Your task to perform on an android device: Open privacy settings Image 0: 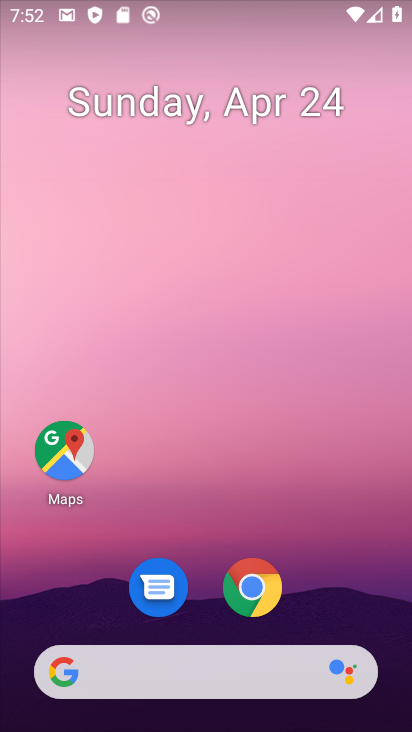
Step 0: drag from (338, 569) to (305, 204)
Your task to perform on an android device: Open privacy settings Image 1: 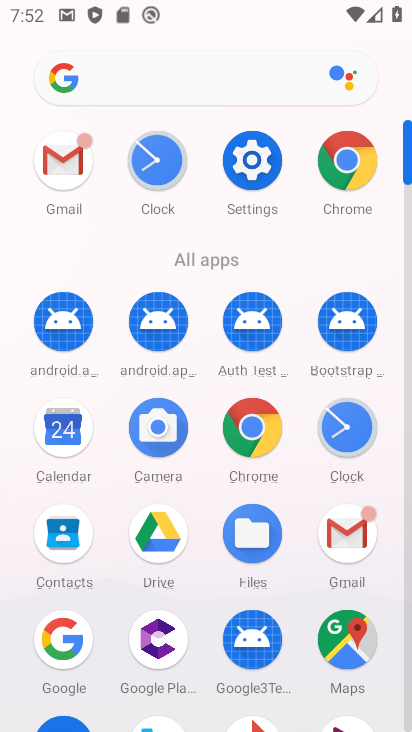
Step 1: click (242, 151)
Your task to perform on an android device: Open privacy settings Image 2: 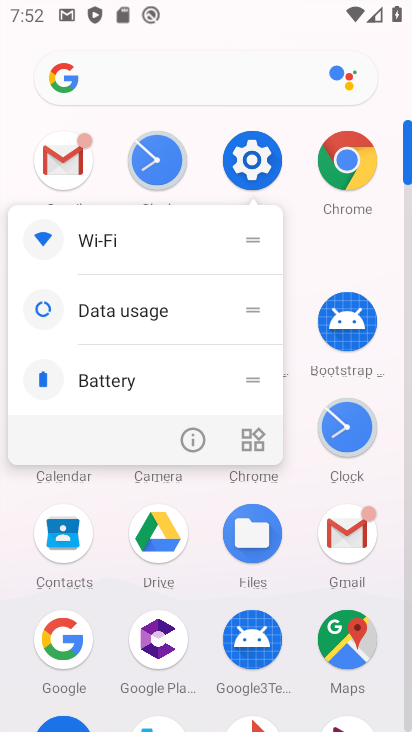
Step 2: click (243, 170)
Your task to perform on an android device: Open privacy settings Image 3: 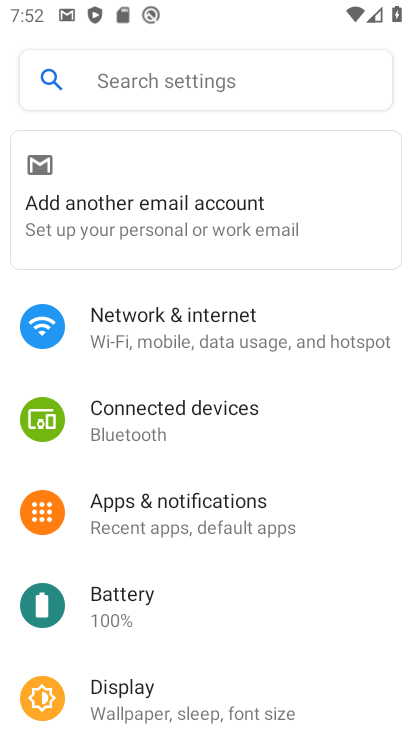
Step 3: drag from (258, 590) to (292, 297)
Your task to perform on an android device: Open privacy settings Image 4: 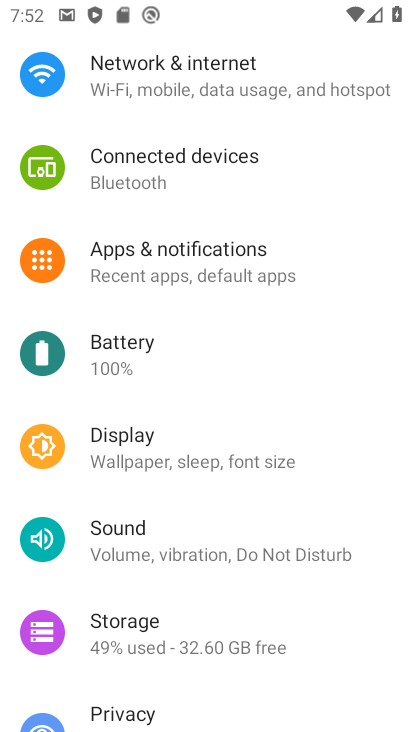
Step 4: drag from (233, 625) to (297, 329)
Your task to perform on an android device: Open privacy settings Image 5: 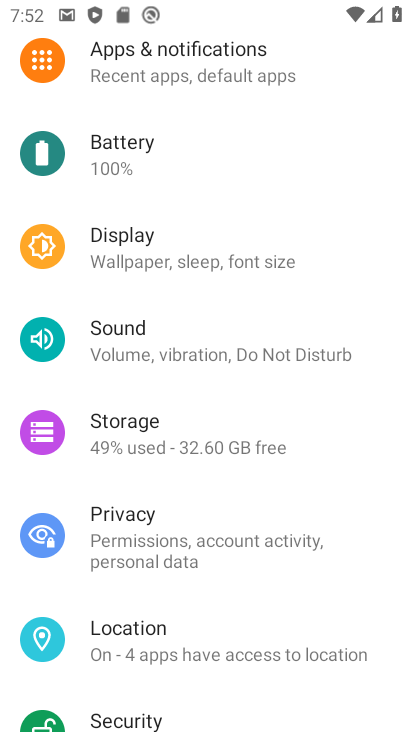
Step 5: click (164, 524)
Your task to perform on an android device: Open privacy settings Image 6: 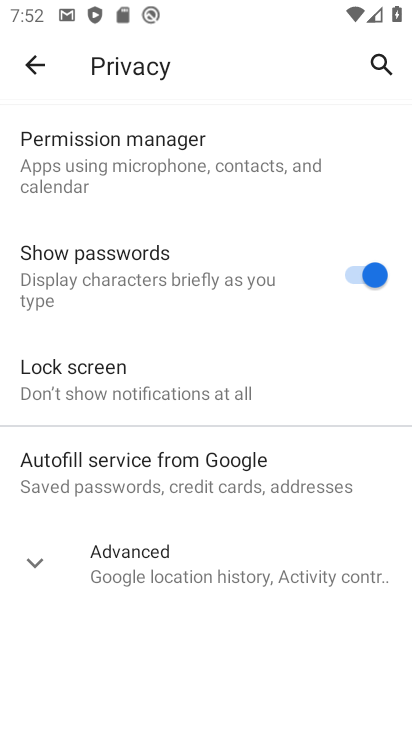
Step 6: task complete